Your task to perform on an android device: check battery use Image 0: 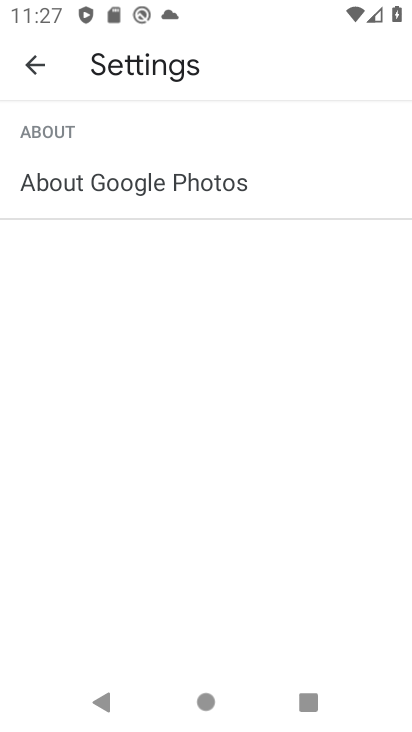
Step 0: press home button
Your task to perform on an android device: check battery use Image 1: 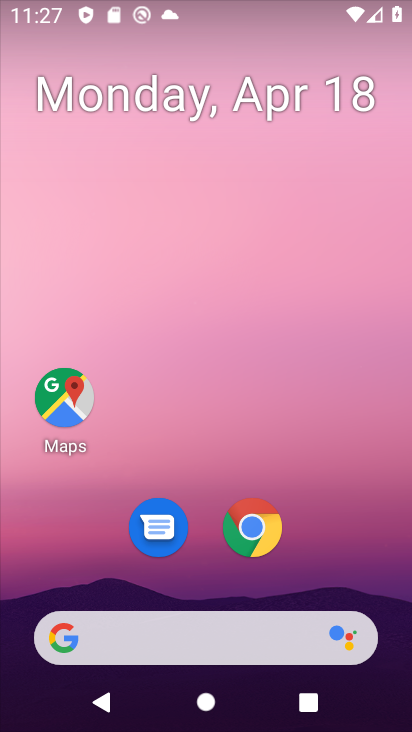
Step 1: drag from (191, 621) to (331, 143)
Your task to perform on an android device: check battery use Image 2: 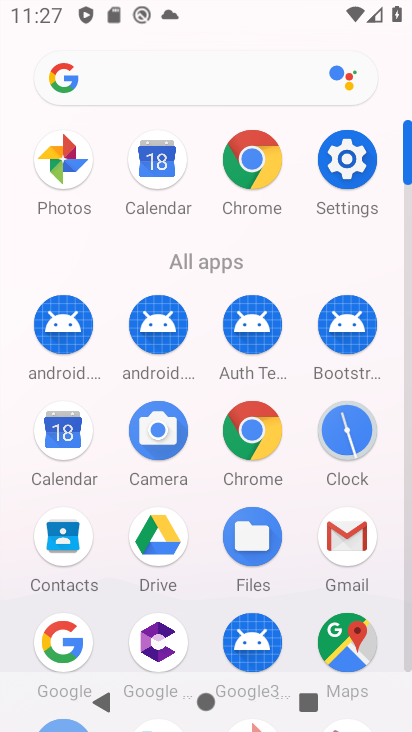
Step 2: click (352, 162)
Your task to perform on an android device: check battery use Image 3: 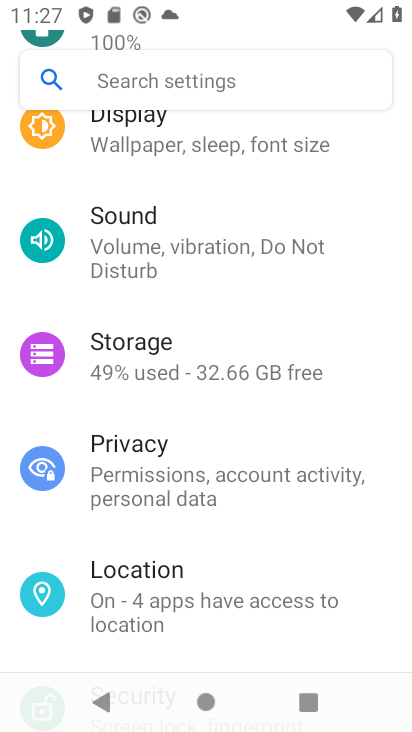
Step 3: drag from (277, 223) to (250, 582)
Your task to perform on an android device: check battery use Image 4: 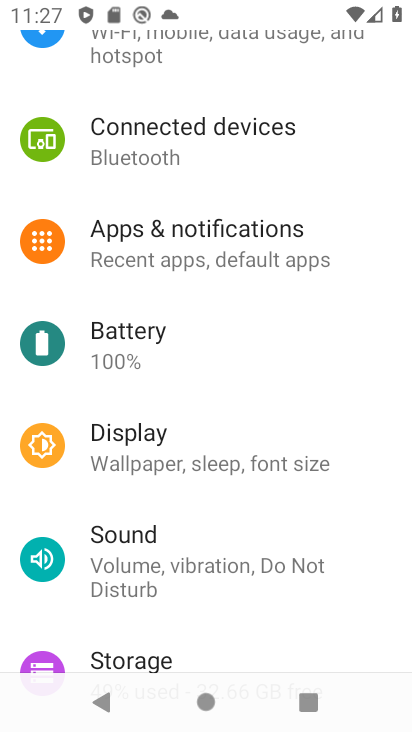
Step 4: click (182, 359)
Your task to perform on an android device: check battery use Image 5: 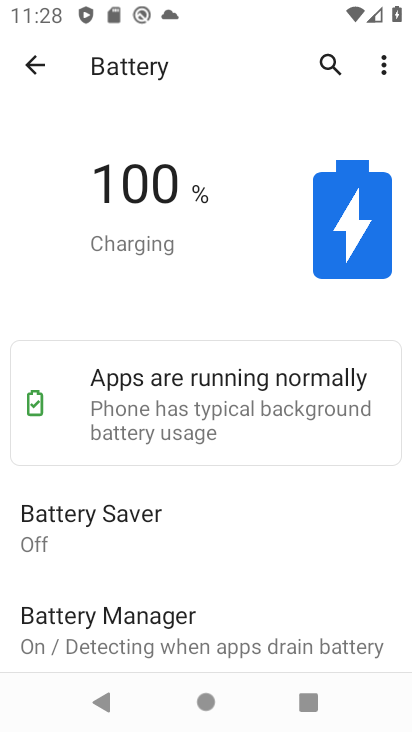
Step 5: task complete